Your task to perform on an android device: open app "Google Maps" Image 0: 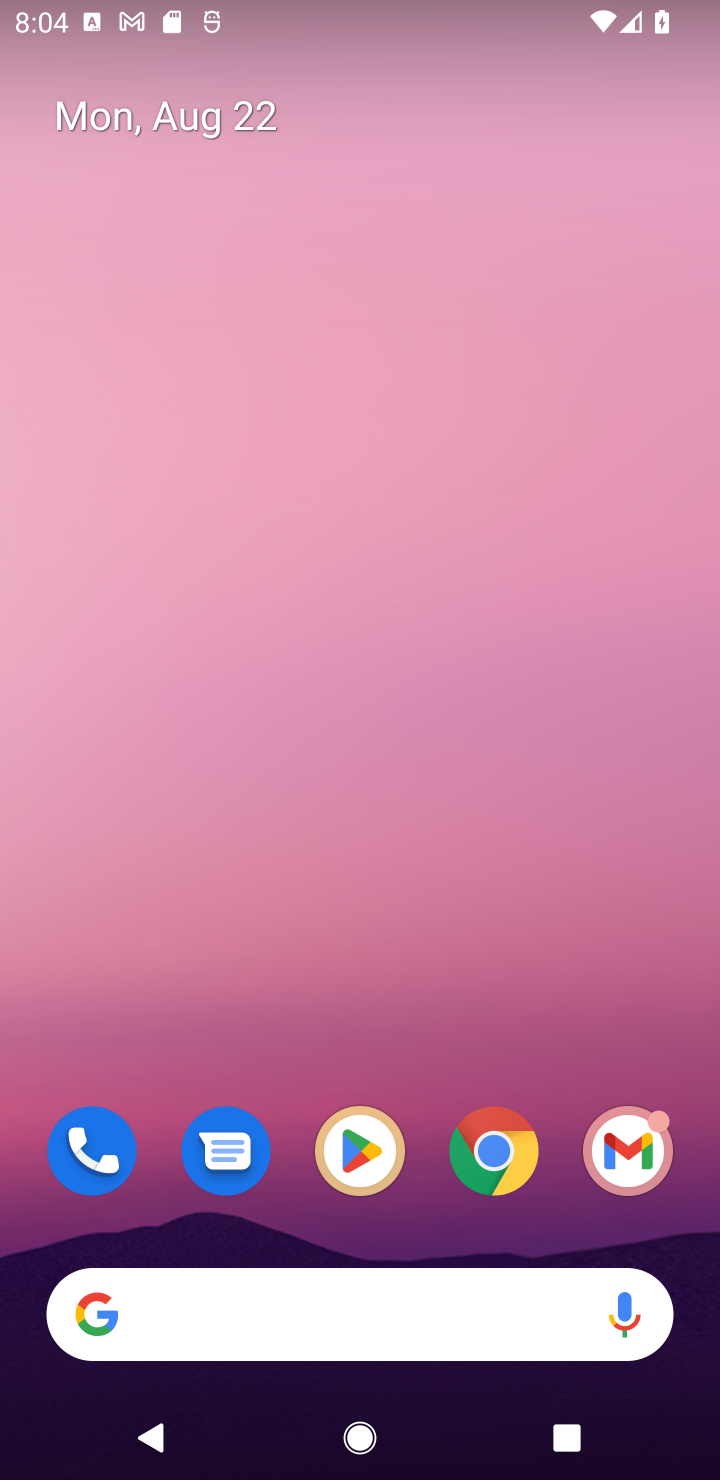
Step 0: press home button
Your task to perform on an android device: open app "Google Maps" Image 1: 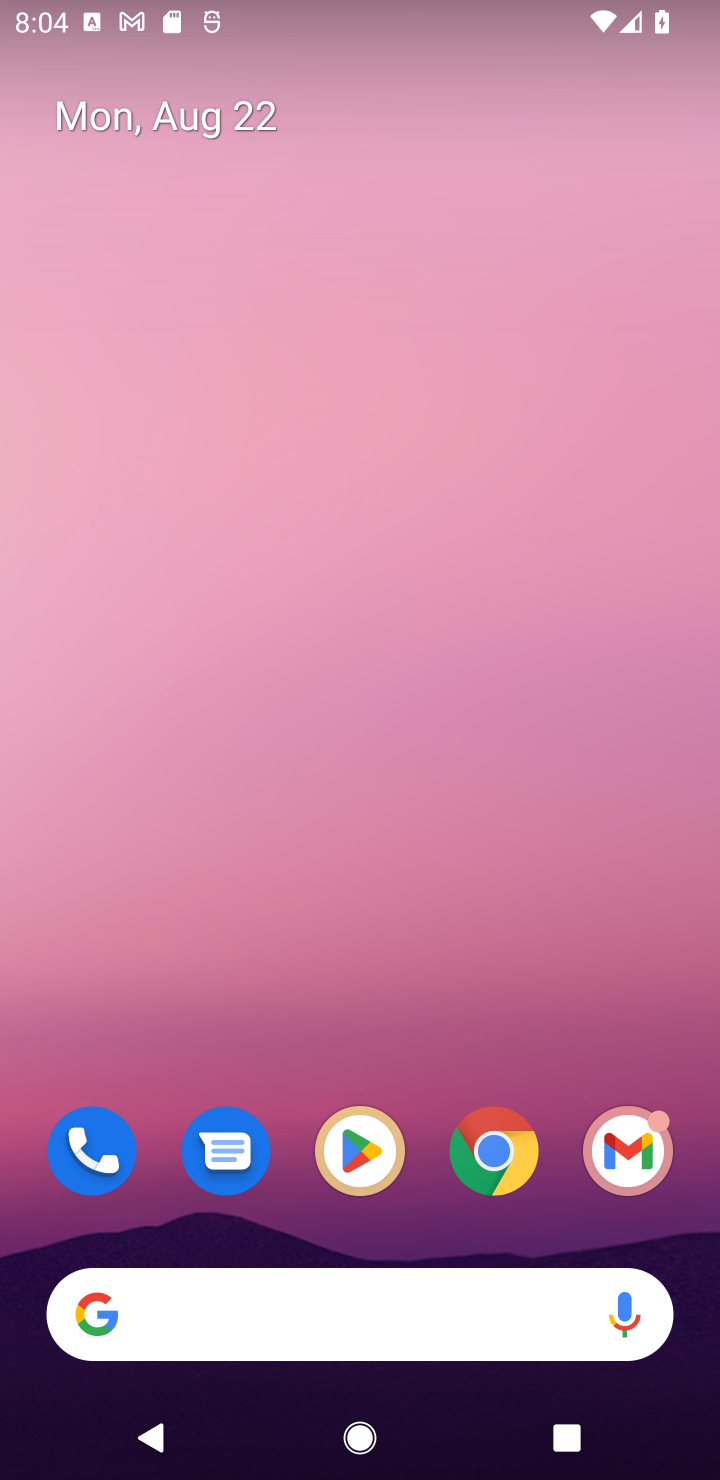
Step 1: click (356, 1165)
Your task to perform on an android device: open app "Google Maps" Image 2: 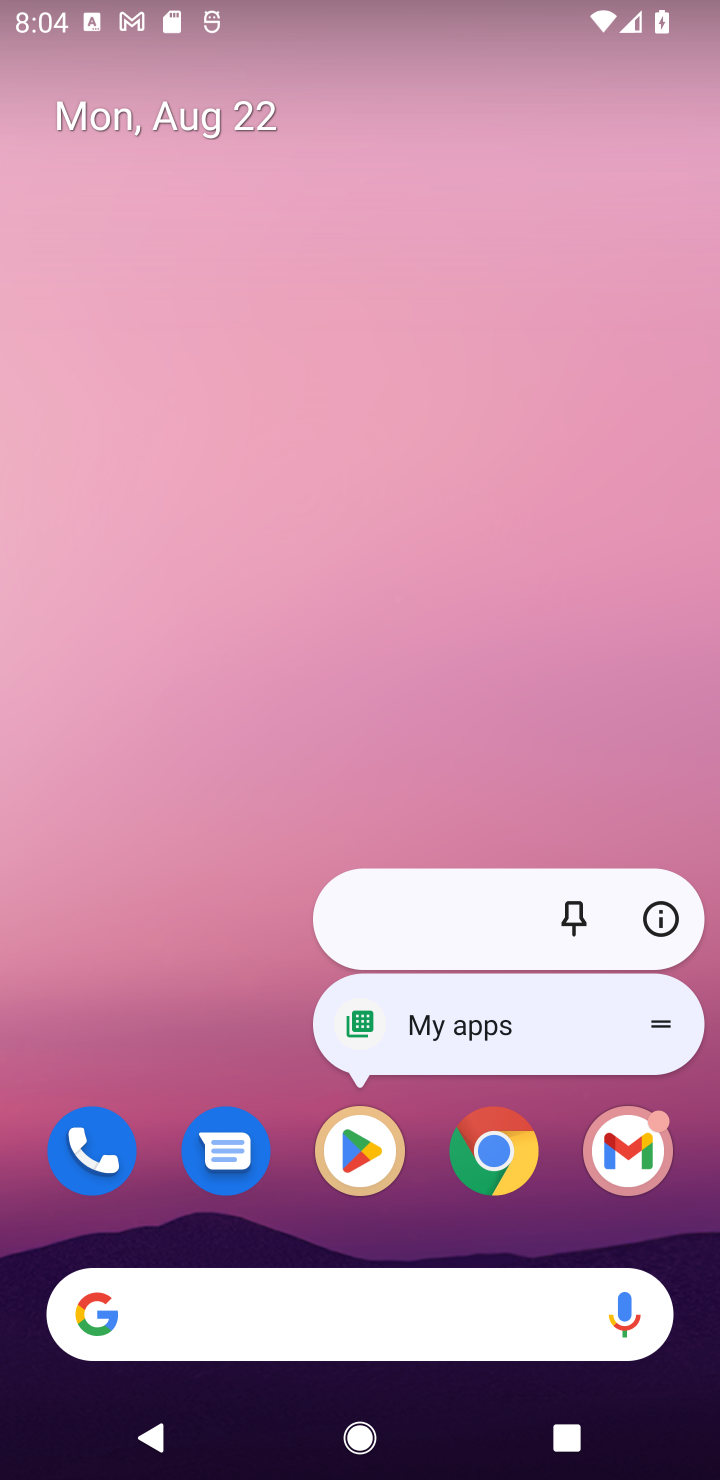
Step 2: click (356, 1172)
Your task to perform on an android device: open app "Google Maps" Image 3: 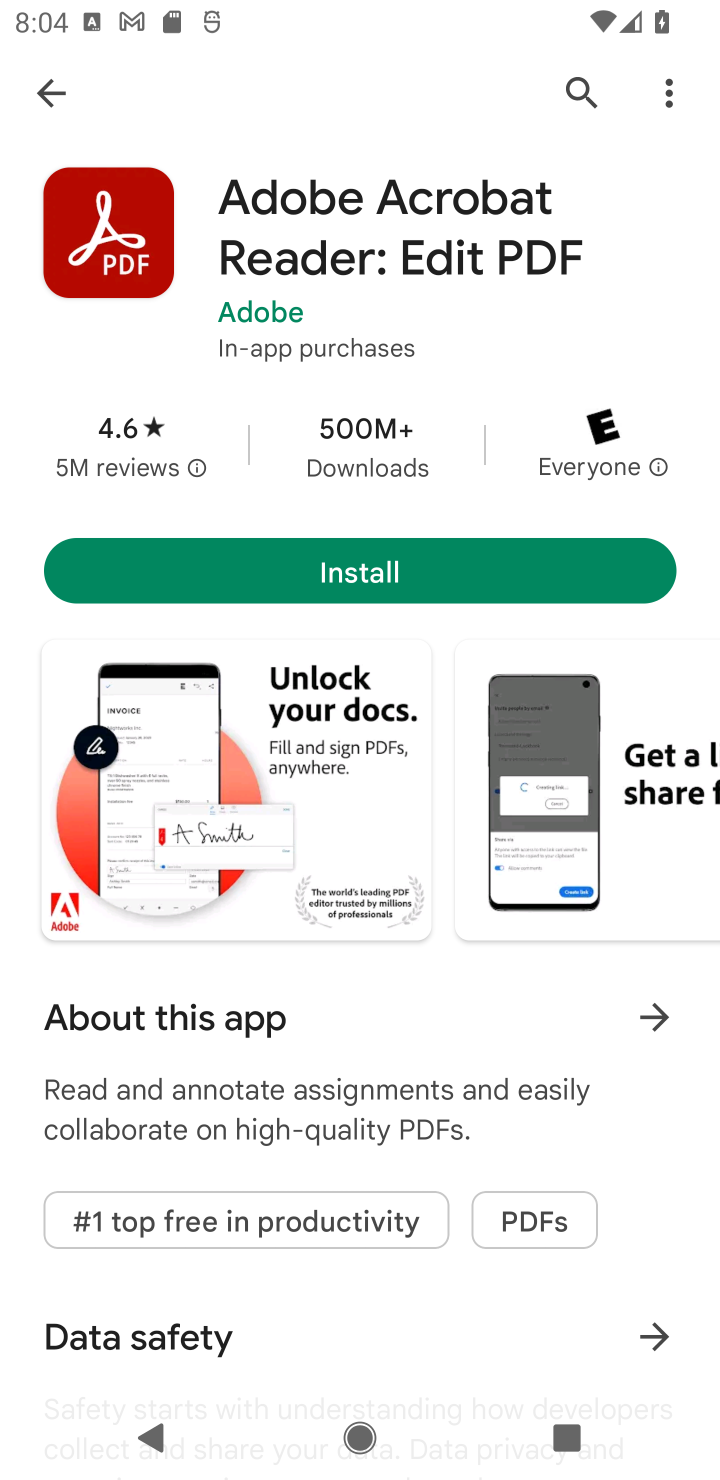
Step 3: click (569, 77)
Your task to perform on an android device: open app "Google Maps" Image 4: 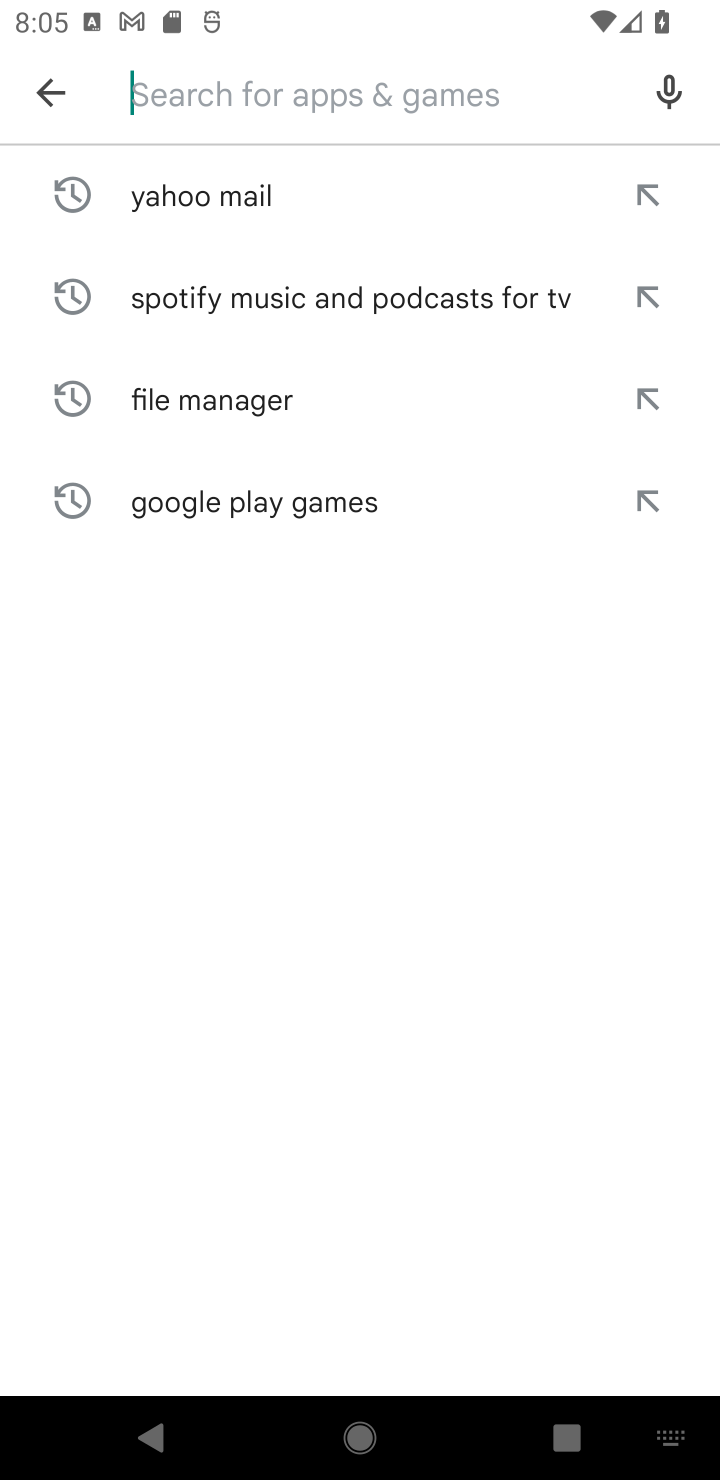
Step 4: type "Google Maps"
Your task to perform on an android device: open app "Google Maps" Image 5: 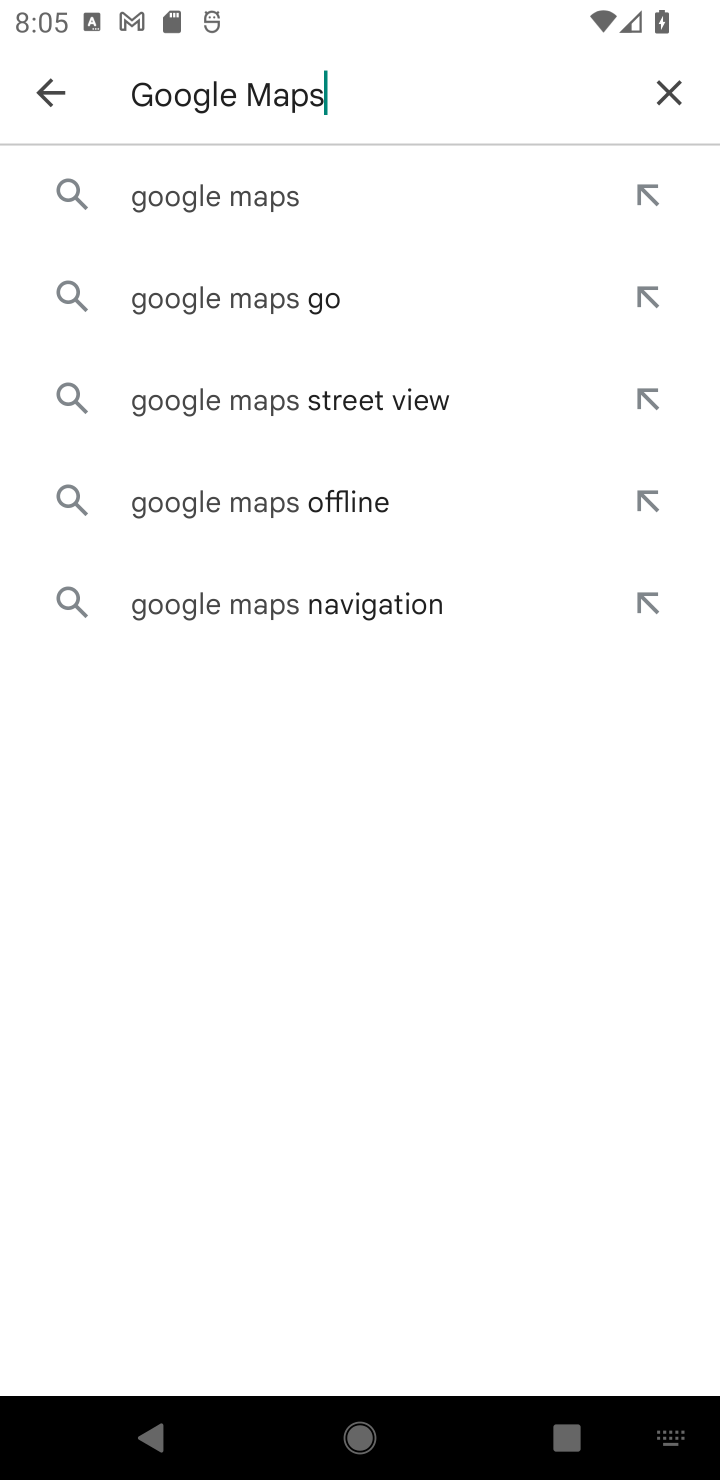
Step 5: click (271, 206)
Your task to perform on an android device: open app "Google Maps" Image 6: 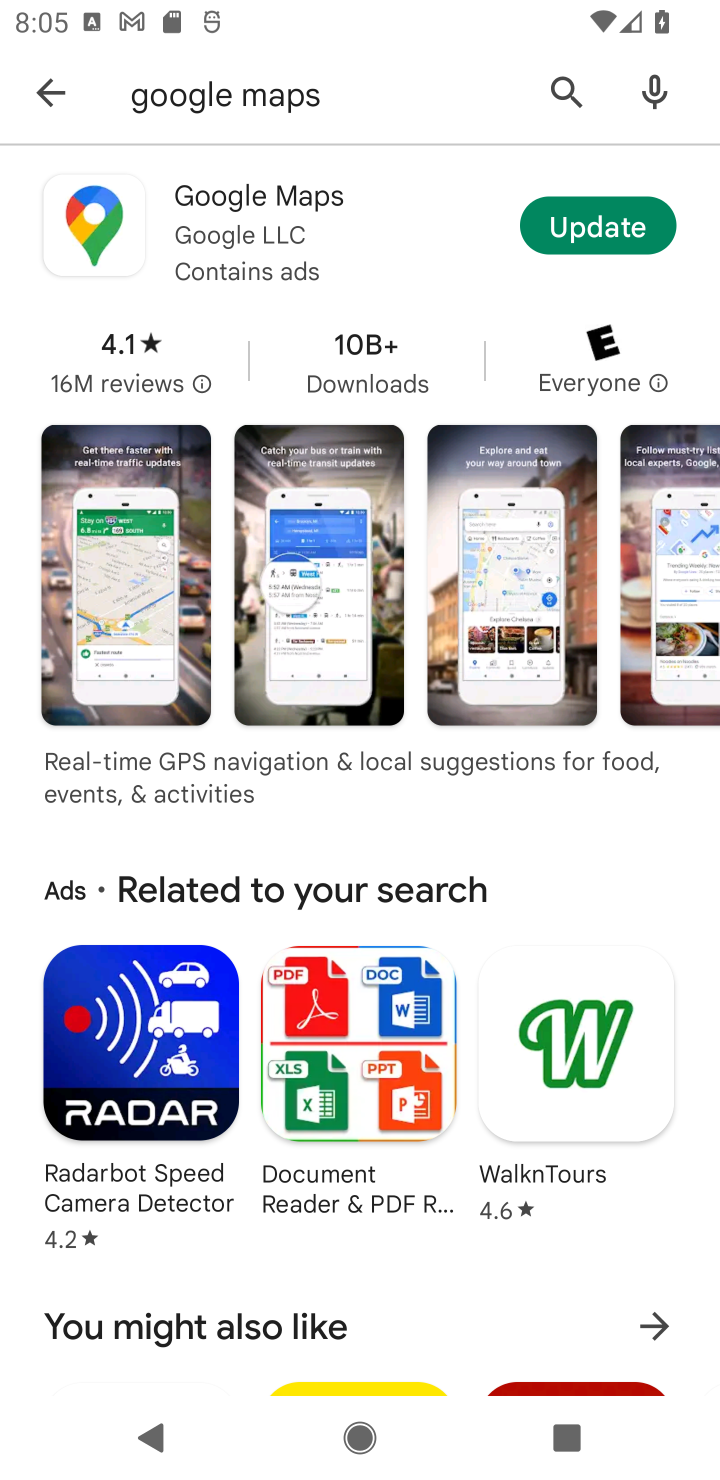
Step 6: click (242, 199)
Your task to perform on an android device: open app "Google Maps" Image 7: 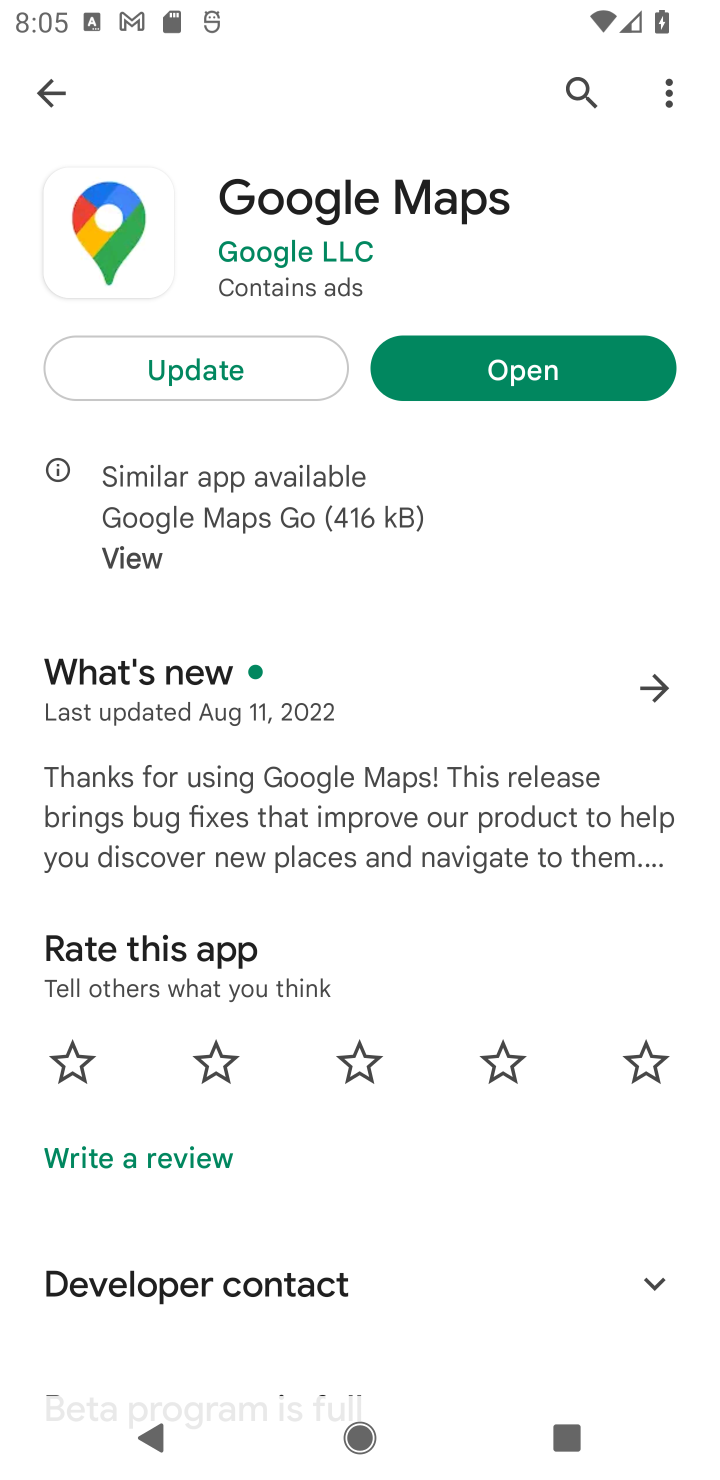
Step 7: click (530, 362)
Your task to perform on an android device: open app "Google Maps" Image 8: 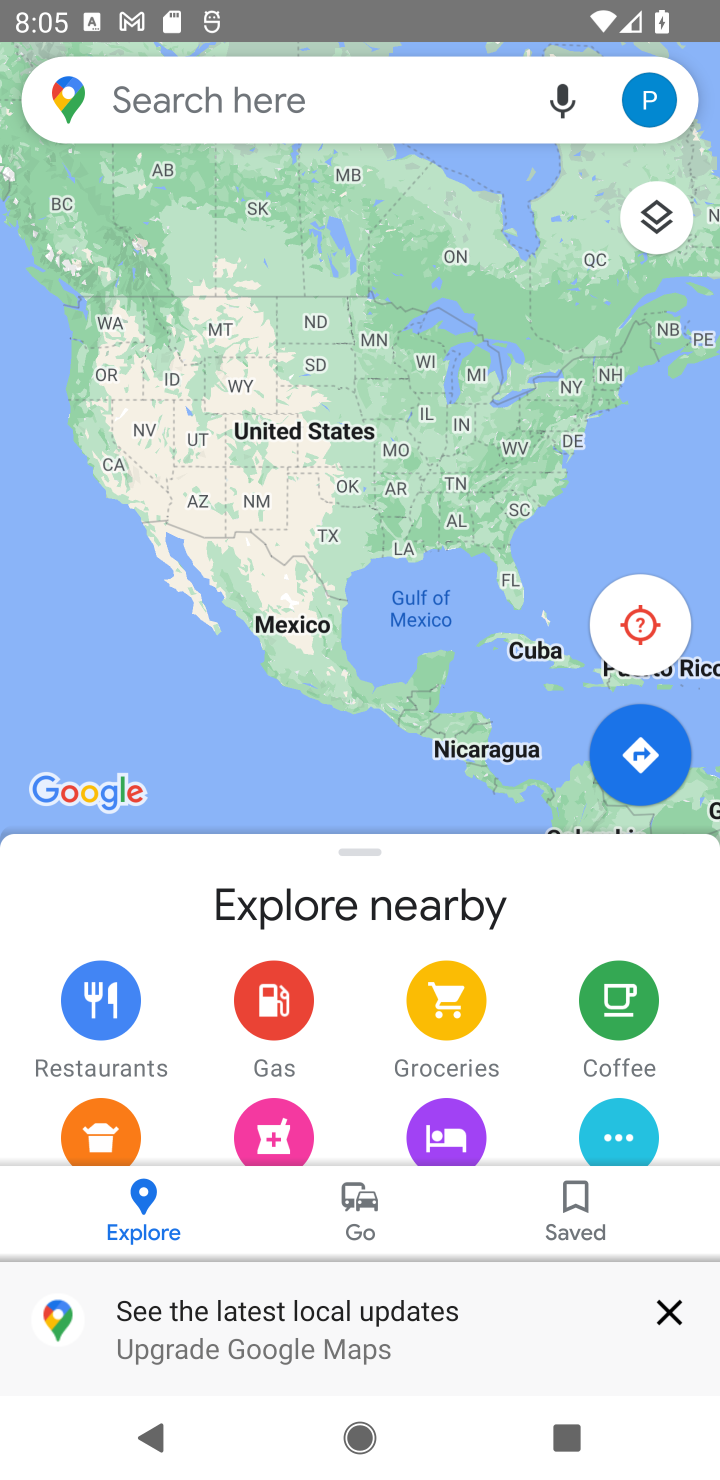
Step 8: task complete